Your task to perform on an android device: What's the weather going to be this weekend? Image 0: 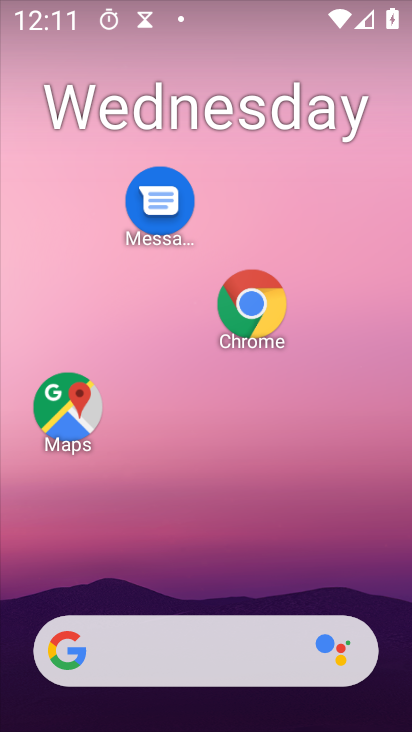
Step 0: click (276, 300)
Your task to perform on an android device: What's the weather going to be this weekend? Image 1: 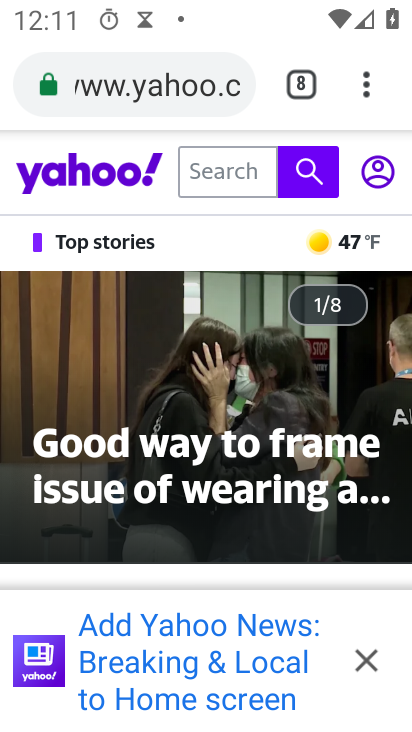
Step 1: click (362, 90)
Your task to perform on an android device: What's the weather going to be this weekend? Image 2: 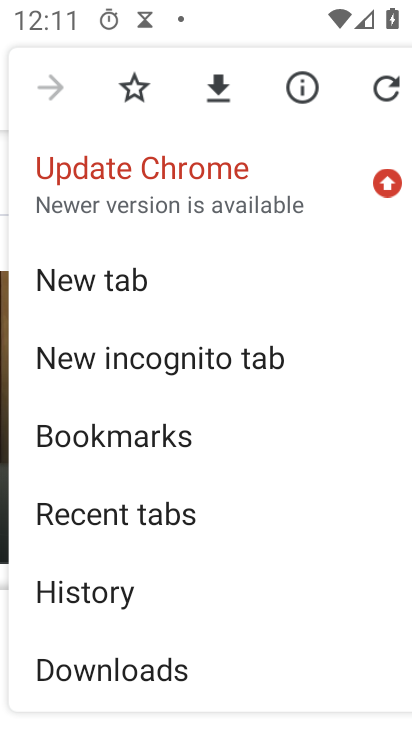
Step 2: click (156, 283)
Your task to perform on an android device: What's the weather going to be this weekend? Image 3: 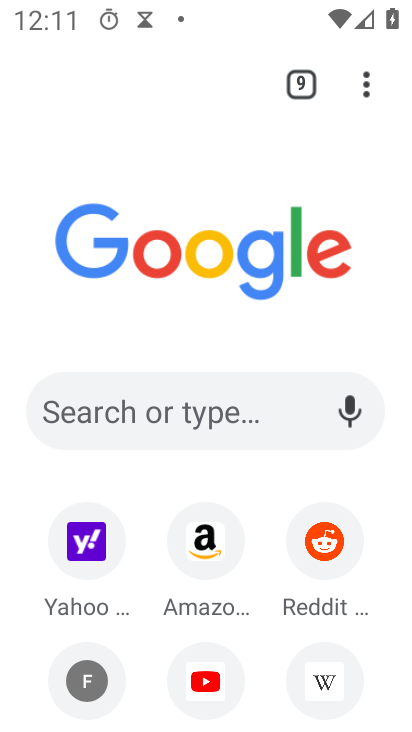
Step 3: click (250, 397)
Your task to perform on an android device: What's the weather going to be this weekend? Image 4: 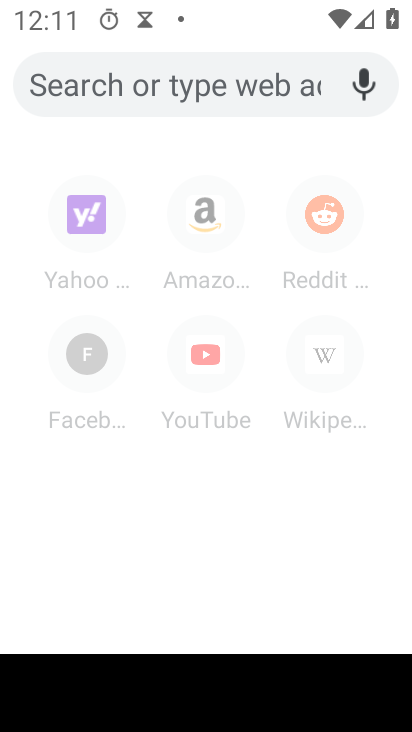
Step 4: type "What's the weather going to be this weekend?"
Your task to perform on an android device: What's the weather going to be this weekend? Image 5: 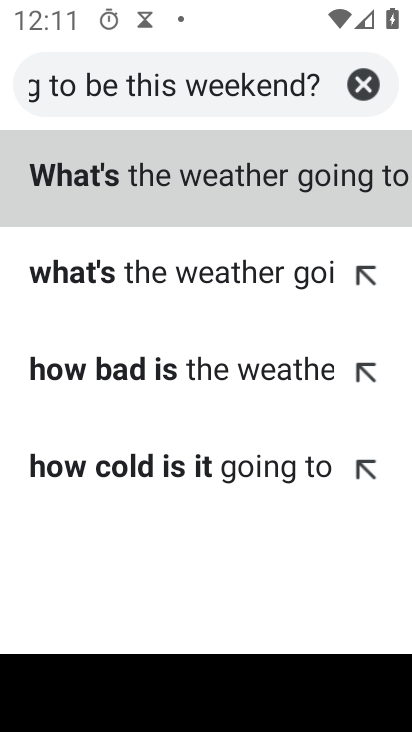
Step 5: click (367, 165)
Your task to perform on an android device: What's the weather going to be this weekend? Image 6: 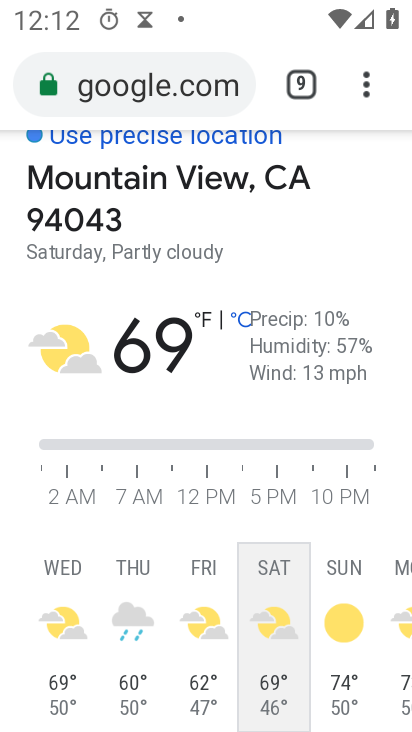
Step 6: task complete